Your task to perform on an android device: turn off improve location accuracy Image 0: 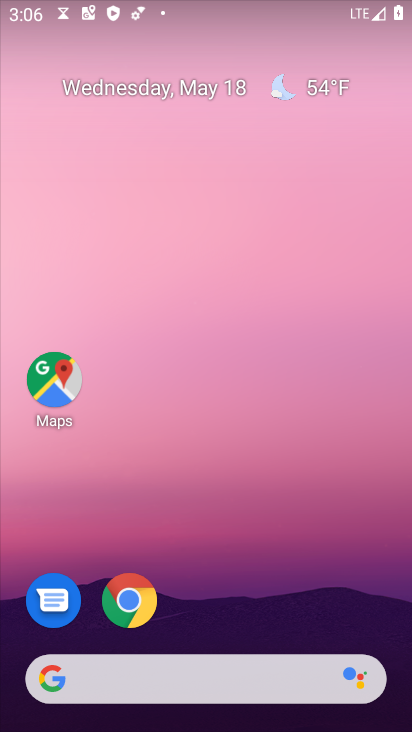
Step 0: press home button
Your task to perform on an android device: turn off improve location accuracy Image 1: 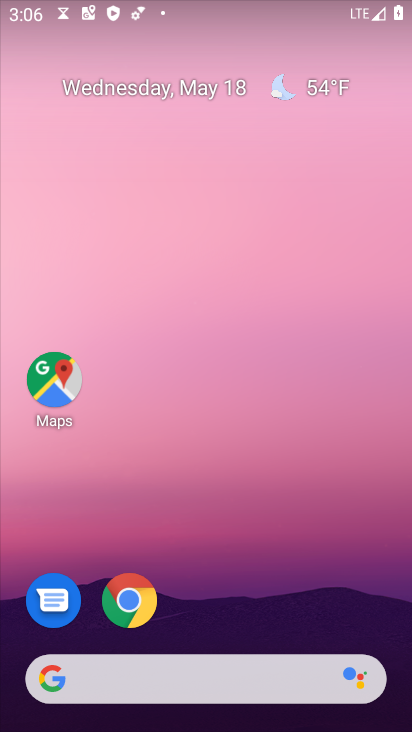
Step 1: drag from (184, 669) to (295, 248)
Your task to perform on an android device: turn off improve location accuracy Image 2: 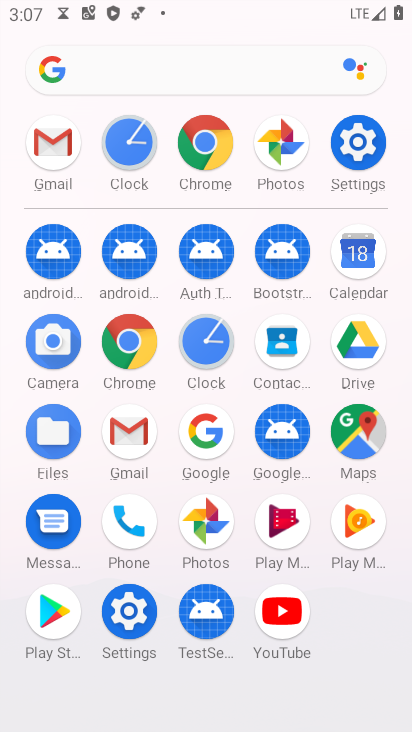
Step 2: click (352, 158)
Your task to perform on an android device: turn off improve location accuracy Image 3: 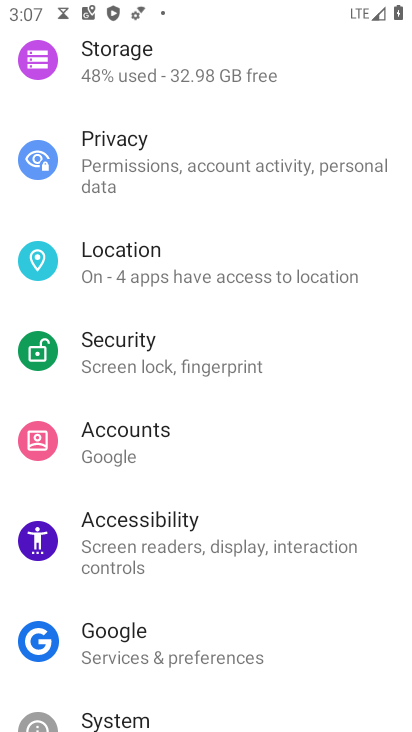
Step 3: click (135, 252)
Your task to perform on an android device: turn off improve location accuracy Image 4: 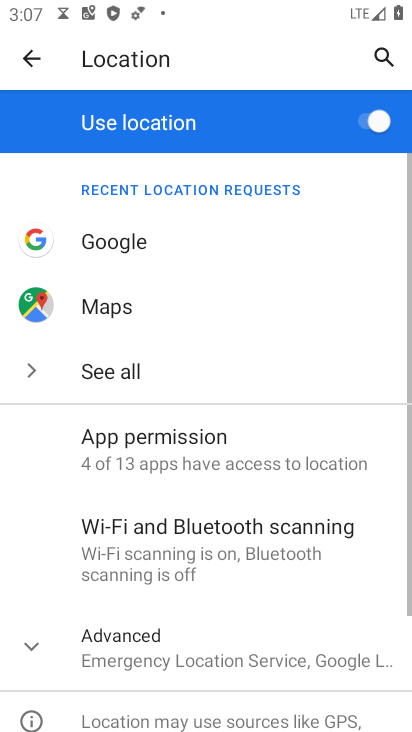
Step 4: click (168, 655)
Your task to perform on an android device: turn off improve location accuracy Image 5: 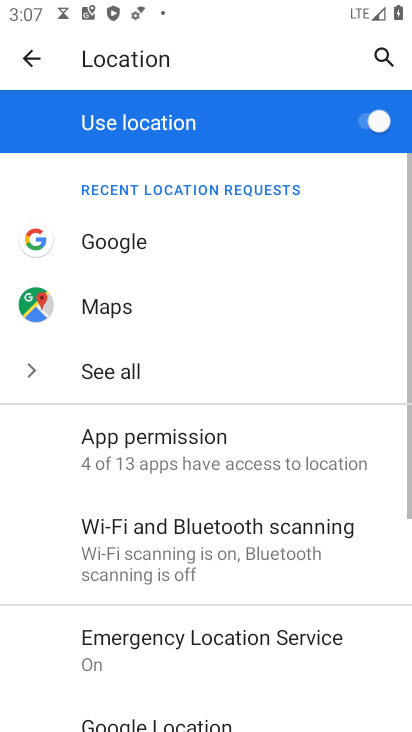
Step 5: drag from (230, 645) to (367, 245)
Your task to perform on an android device: turn off improve location accuracy Image 6: 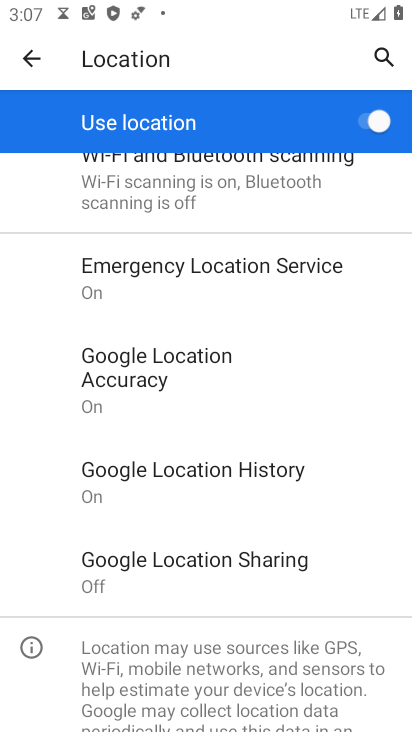
Step 6: click (174, 368)
Your task to perform on an android device: turn off improve location accuracy Image 7: 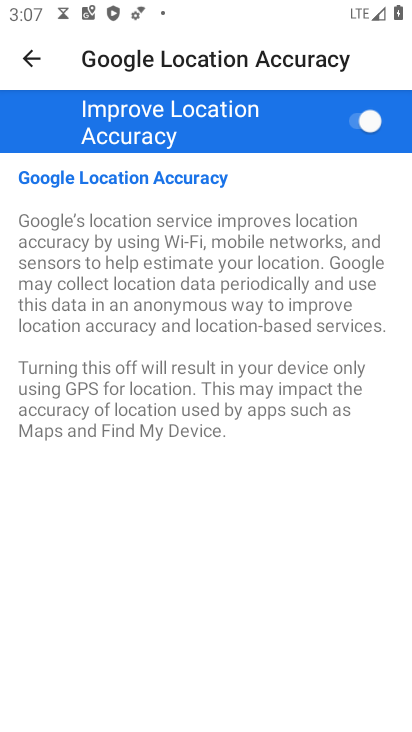
Step 7: click (350, 117)
Your task to perform on an android device: turn off improve location accuracy Image 8: 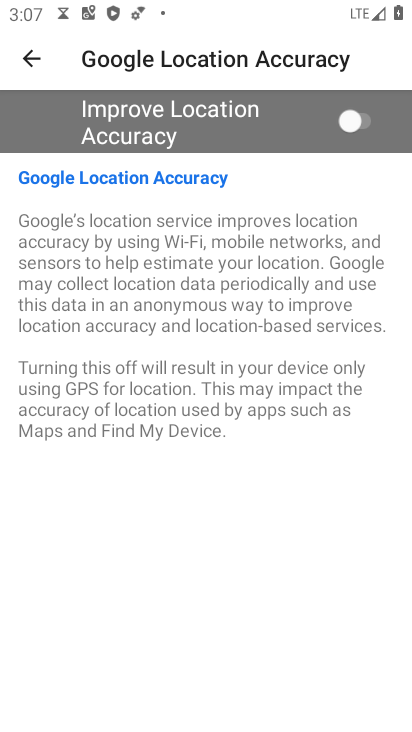
Step 8: task complete